Your task to perform on an android device: Do I have any events this weekend? Image 0: 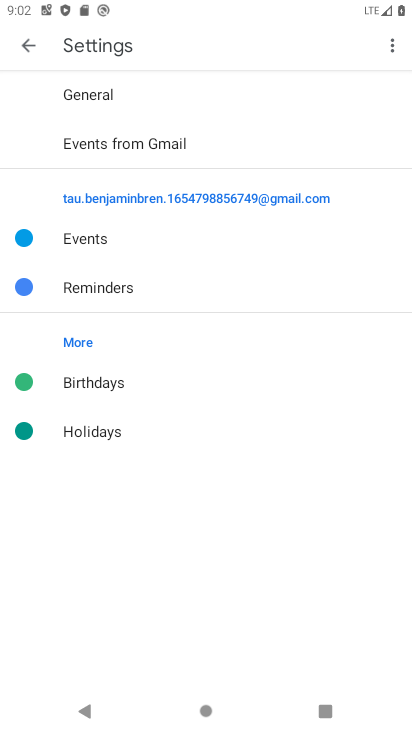
Step 0: press home button
Your task to perform on an android device: Do I have any events this weekend? Image 1: 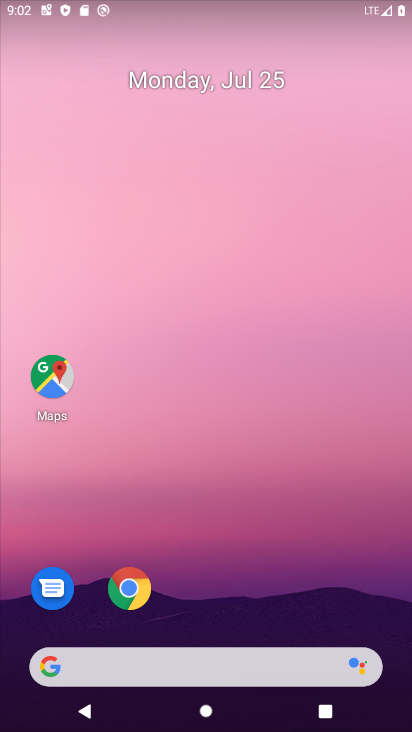
Step 1: drag from (190, 656) to (261, 121)
Your task to perform on an android device: Do I have any events this weekend? Image 2: 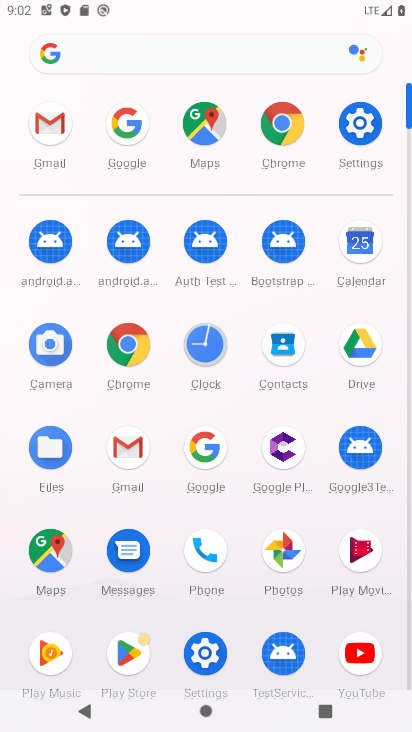
Step 2: click (369, 240)
Your task to perform on an android device: Do I have any events this weekend? Image 3: 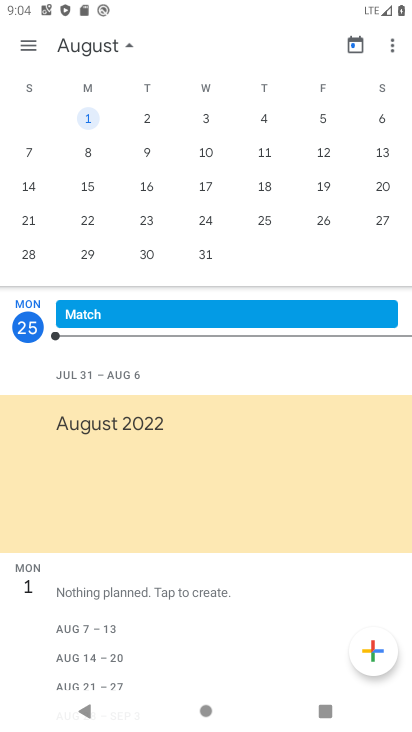
Step 3: drag from (19, 217) to (407, 194)
Your task to perform on an android device: Do I have any events this weekend? Image 4: 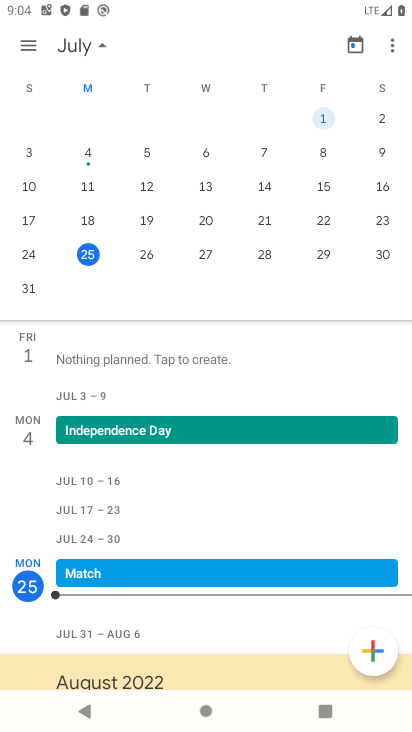
Step 4: click (381, 255)
Your task to perform on an android device: Do I have any events this weekend? Image 5: 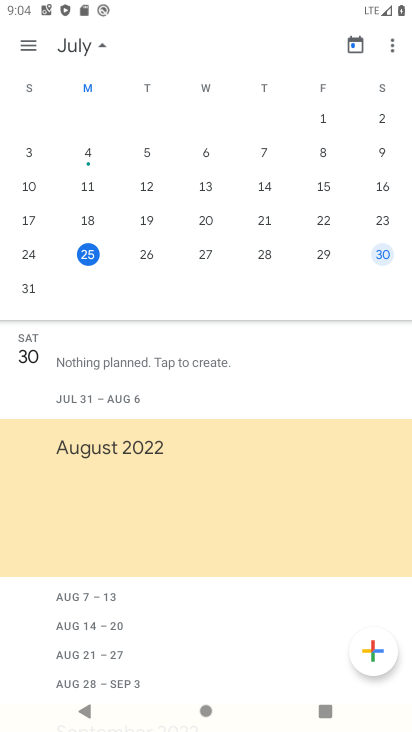
Step 5: click (24, 290)
Your task to perform on an android device: Do I have any events this weekend? Image 6: 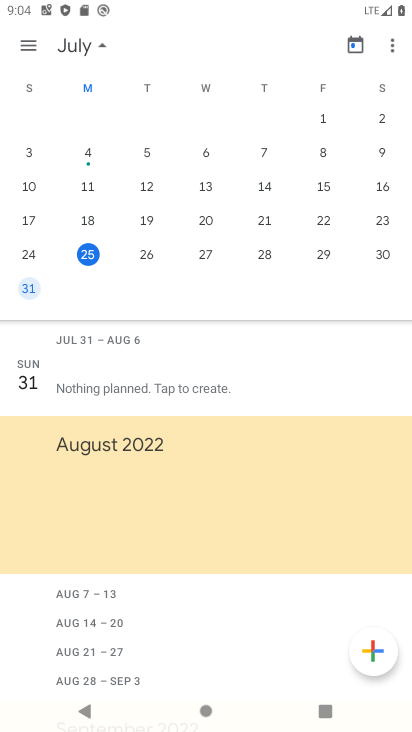
Step 6: task complete